Your task to perform on an android device: Go to Android settings Image 0: 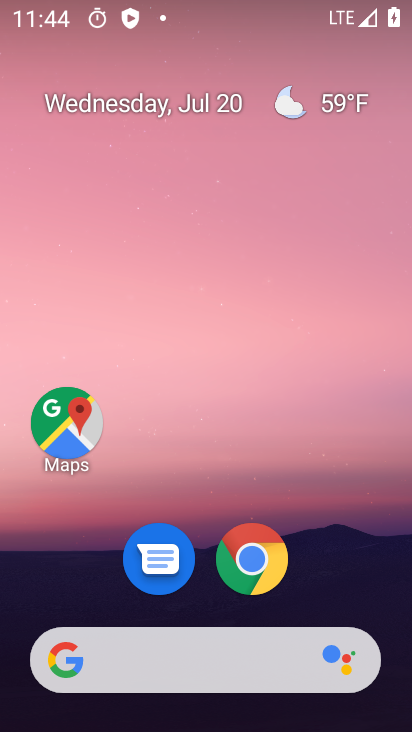
Step 0: drag from (74, 574) to (204, 68)
Your task to perform on an android device: Go to Android settings Image 1: 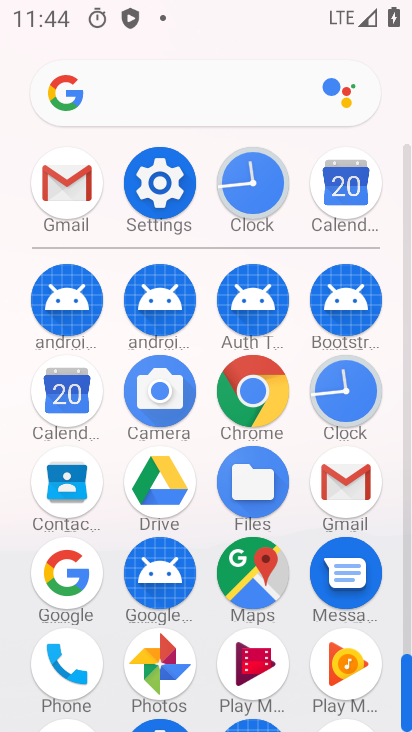
Step 1: click (159, 196)
Your task to perform on an android device: Go to Android settings Image 2: 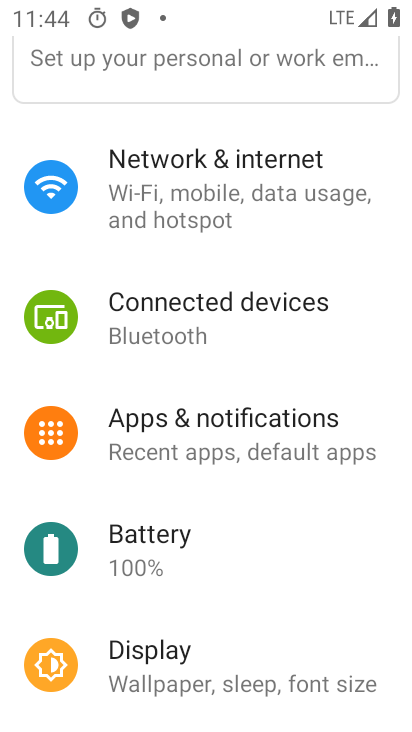
Step 2: drag from (204, 652) to (340, 114)
Your task to perform on an android device: Go to Android settings Image 3: 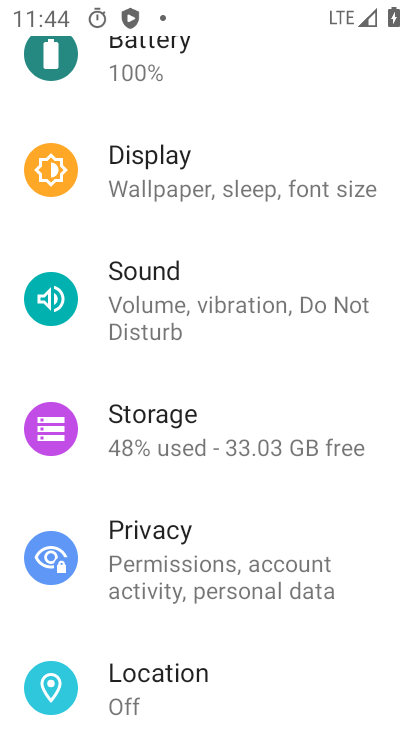
Step 3: drag from (174, 689) to (294, 77)
Your task to perform on an android device: Go to Android settings Image 4: 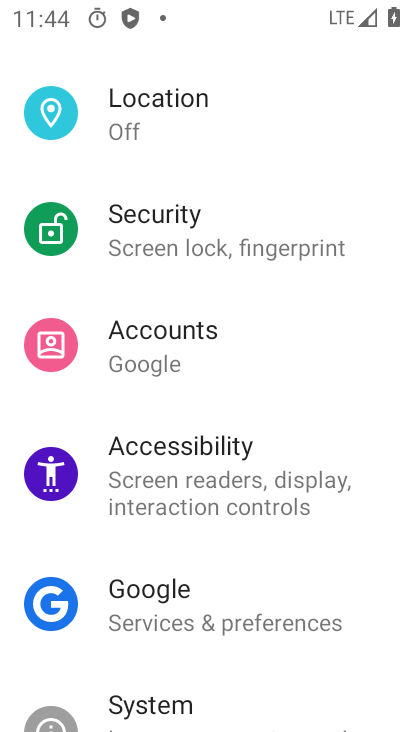
Step 4: drag from (156, 666) to (255, 59)
Your task to perform on an android device: Go to Android settings Image 5: 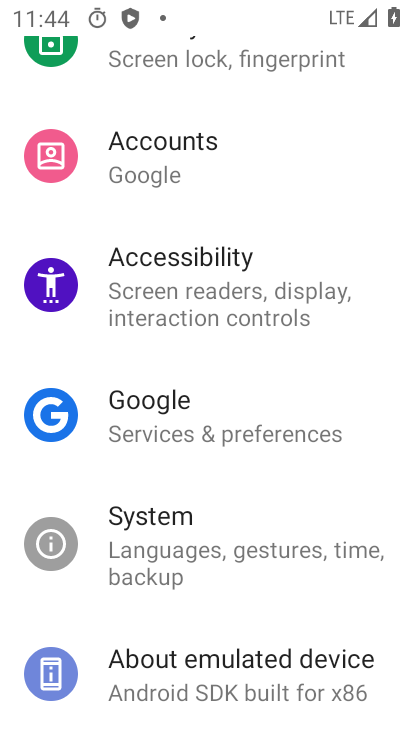
Step 5: click (147, 678)
Your task to perform on an android device: Go to Android settings Image 6: 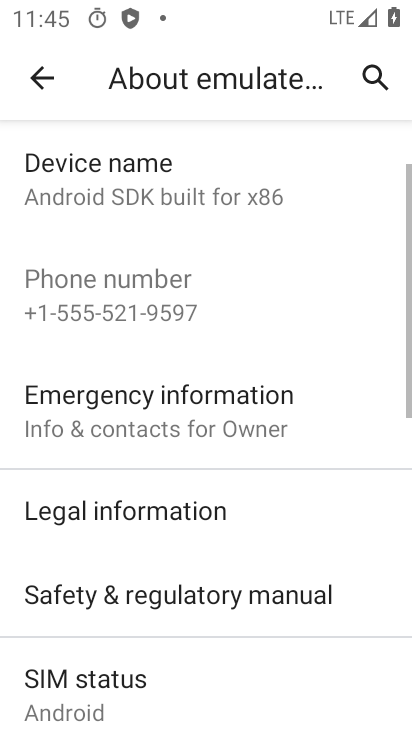
Step 6: task complete